Your task to perform on an android device: change the clock display to analog Image 0: 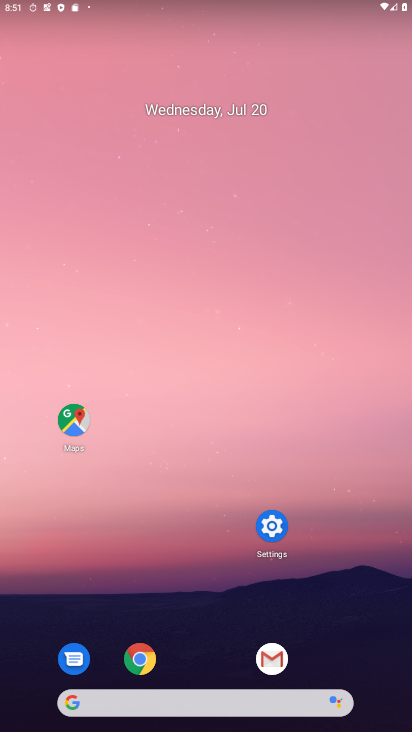
Step 0: drag from (267, 659) to (191, 177)
Your task to perform on an android device: change the clock display to analog Image 1: 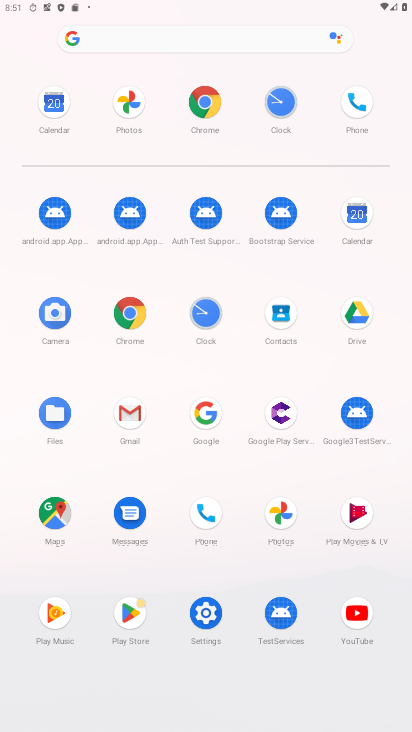
Step 1: click (203, 605)
Your task to perform on an android device: change the clock display to analog Image 2: 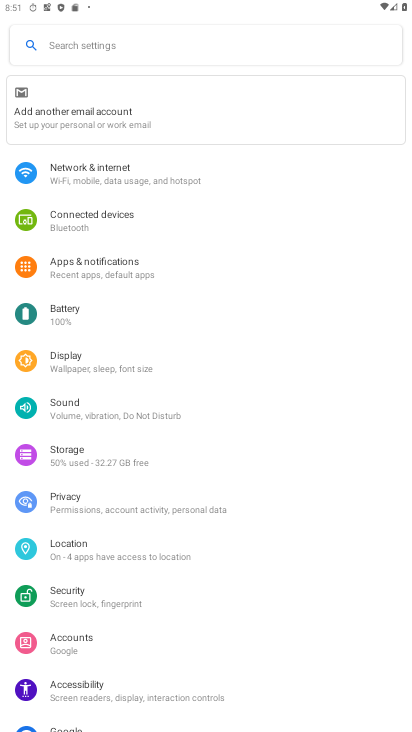
Step 2: press home button
Your task to perform on an android device: change the clock display to analog Image 3: 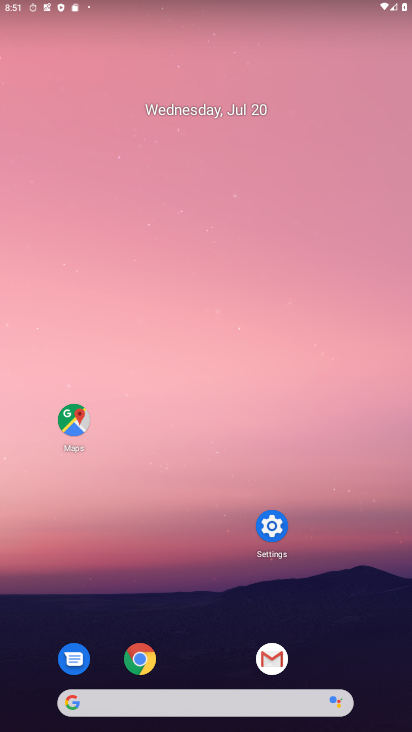
Step 3: drag from (211, 708) to (260, 140)
Your task to perform on an android device: change the clock display to analog Image 4: 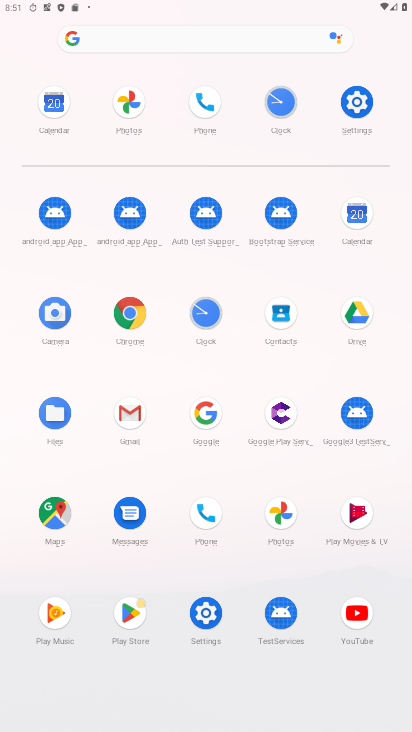
Step 4: click (197, 310)
Your task to perform on an android device: change the clock display to analog Image 5: 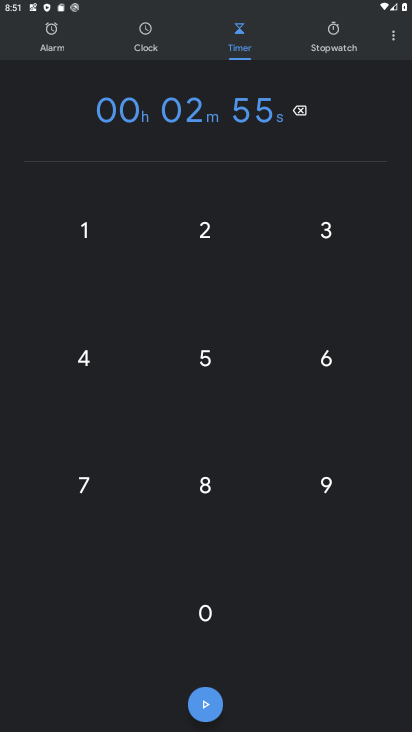
Step 5: click (391, 48)
Your task to perform on an android device: change the clock display to analog Image 6: 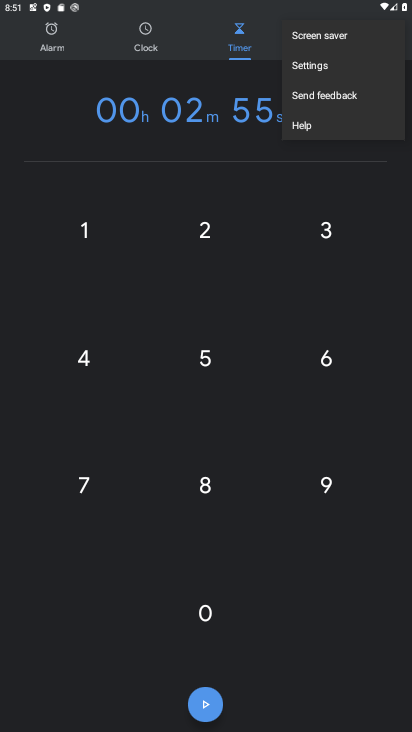
Step 6: click (304, 72)
Your task to perform on an android device: change the clock display to analog Image 7: 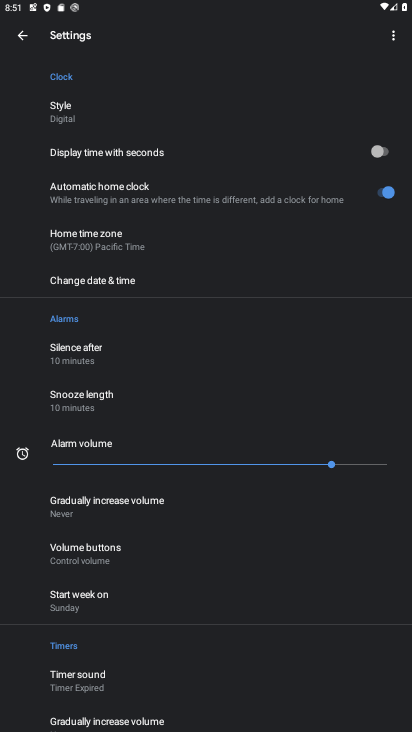
Step 7: click (95, 123)
Your task to perform on an android device: change the clock display to analog Image 8: 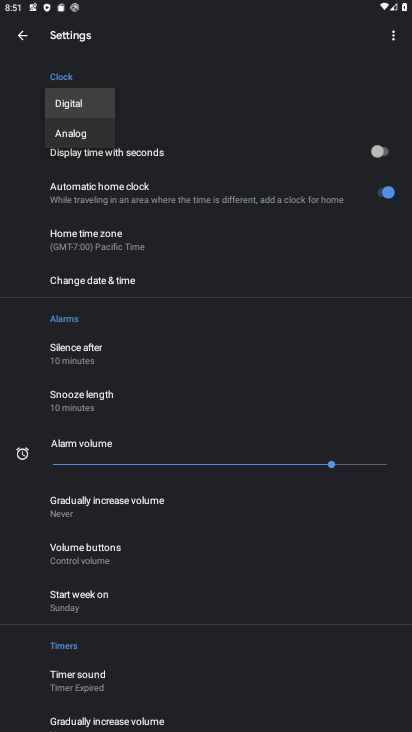
Step 8: click (85, 142)
Your task to perform on an android device: change the clock display to analog Image 9: 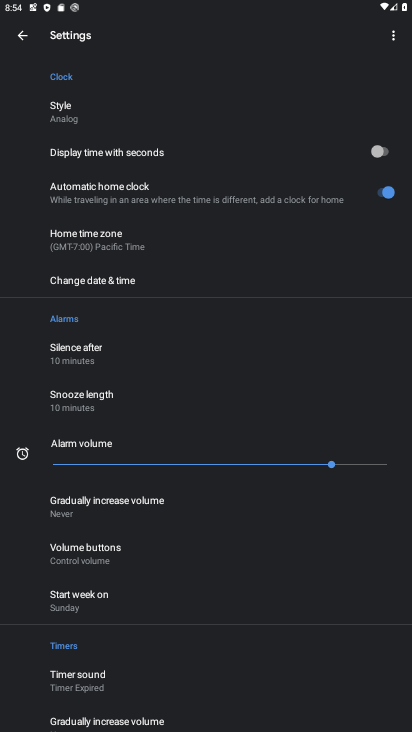
Step 9: task complete